Your task to perform on an android device: toggle notification dots Image 0: 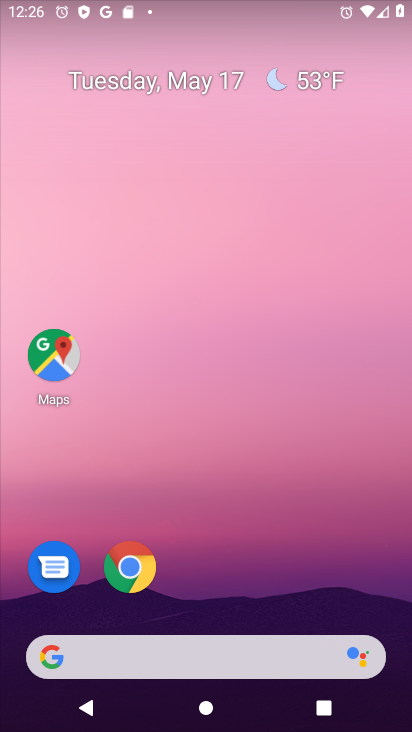
Step 0: drag from (376, 602) to (362, 149)
Your task to perform on an android device: toggle notification dots Image 1: 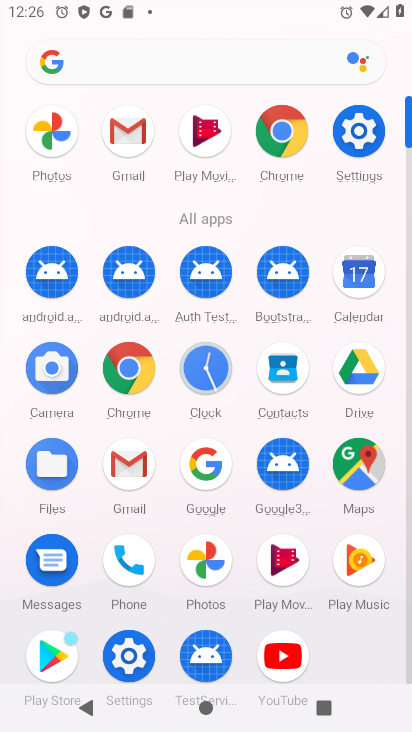
Step 1: click (346, 121)
Your task to perform on an android device: toggle notification dots Image 2: 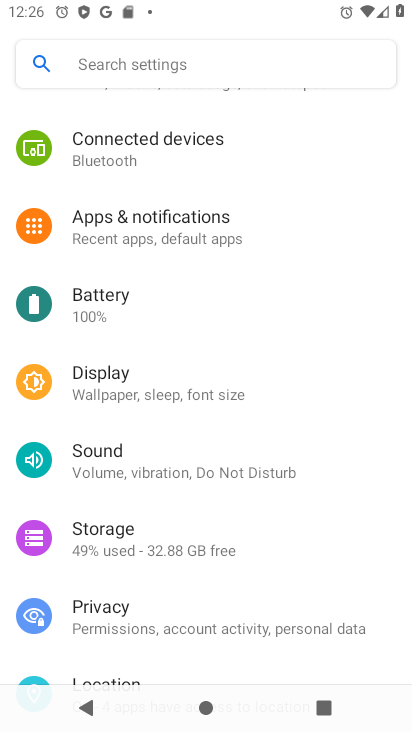
Step 2: drag from (336, 556) to (330, 308)
Your task to perform on an android device: toggle notification dots Image 3: 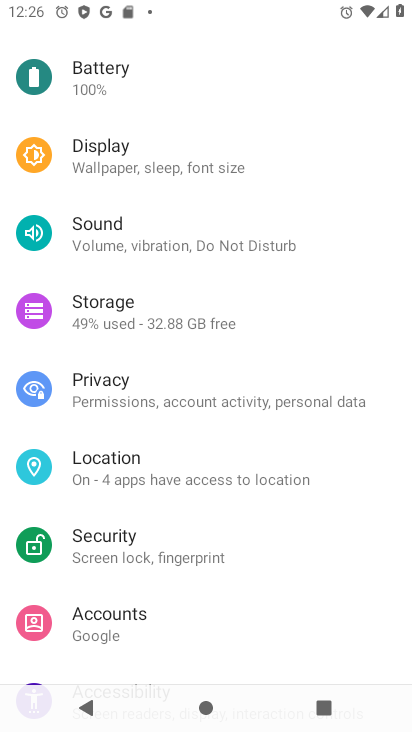
Step 3: drag from (286, 600) to (261, 450)
Your task to perform on an android device: toggle notification dots Image 4: 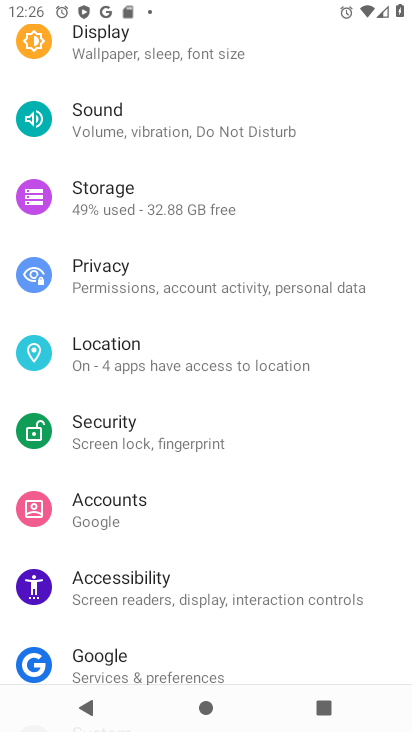
Step 4: drag from (285, 579) to (287, 440)
Your task to perform on an android device: toggle notification dots Image 5: 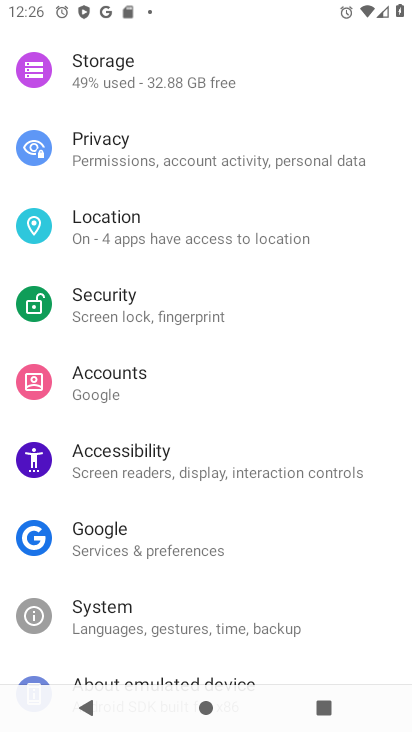
Step 5: drag from (310, 364) to (315, 507)
Your task to perform on an android device: toggle notification dots Image 6: 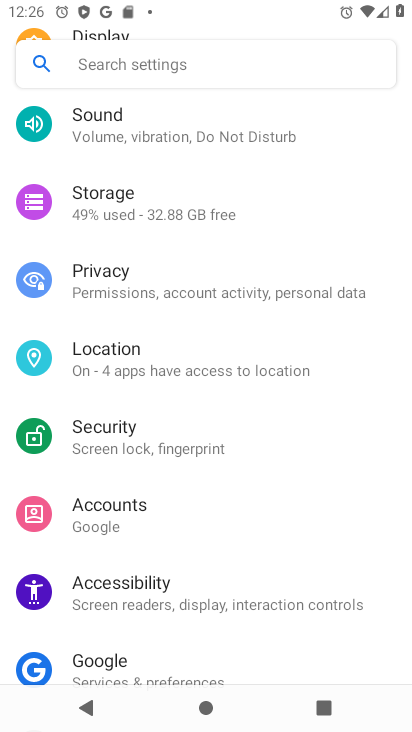
Step 6: drag from (309, 231) to (318, 451)
Your task to perform on an android device: toggle notification dots Image 7: 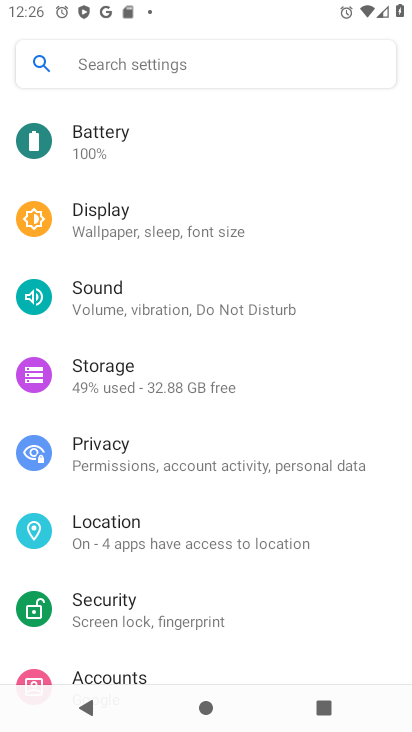
Step 7: drag from (343, 191) to (326, 396)
Your task to perform on an android device: toggle notification dots Image 8: 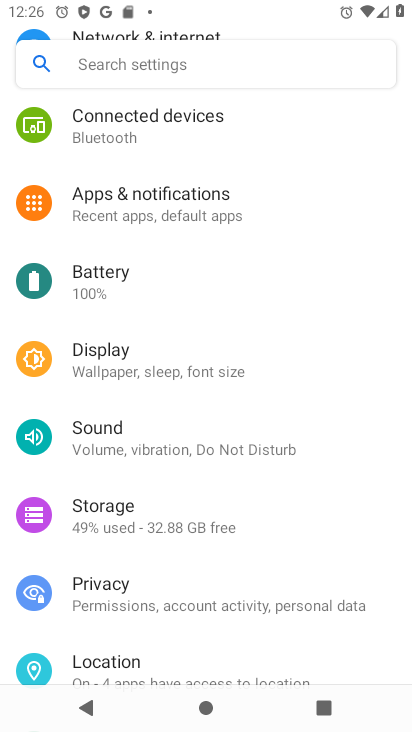
Step 8: click (219, 196)
Your task to perform on an android device: toggle notification dots Image 9: 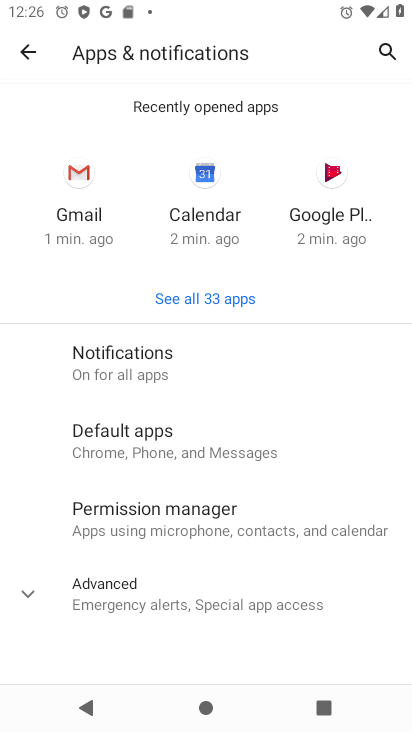
Step 9: click (165, 369)
Your task to perform on an android device: toggle notification dots Image 10: 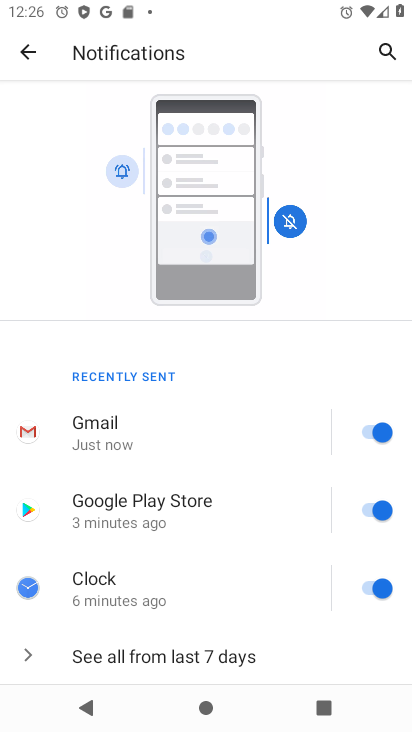
Step 10: drag from (215, 560) to (257, 290)
Your task to perform on an android device: toggle notification dots Image 11: 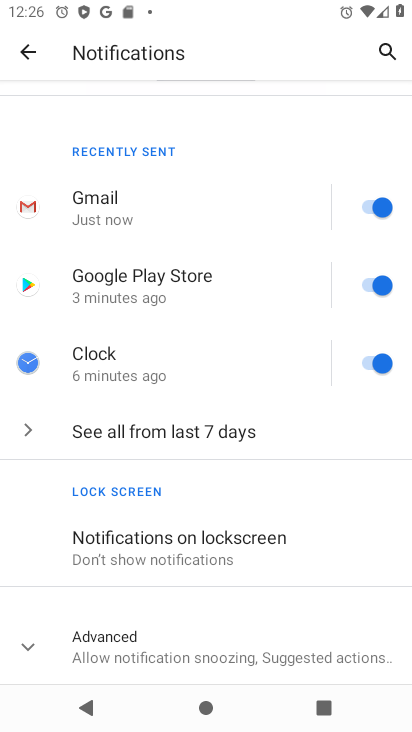
Step 11: drag from (288, 607) to (271, 399)
Your task to perform on an android device: toggle notification dots Image 12: 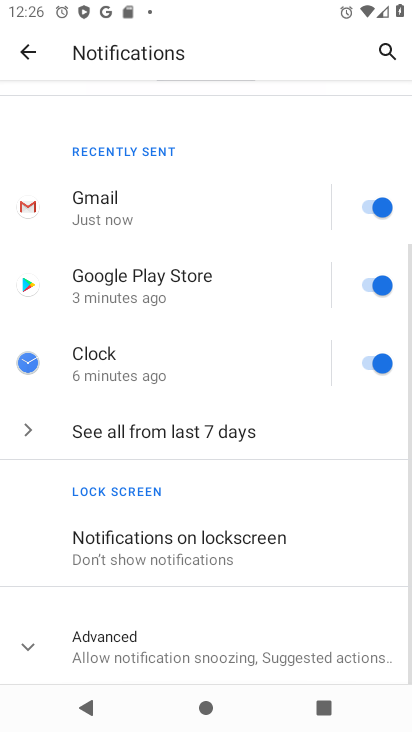
Step 12: click (202, 643)
Your task to perform on an android device: toggle notification dots Image 13: 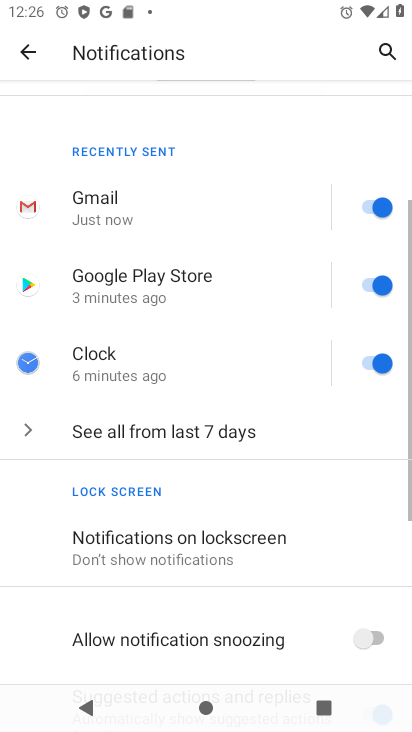
Step 13: drag from (238, 606) to (263, 476)
Your task to perform on an android device: toggle notification dots Image 14: 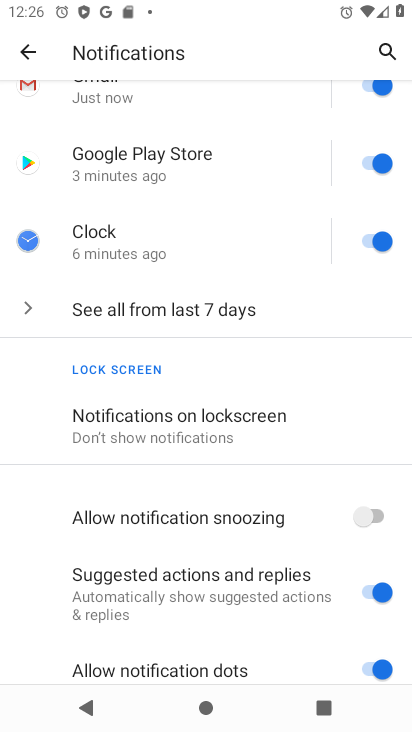
Step 14: drag from (277, 581) to (296, 495)
Your task to perform on an android device: toggle notification dots Image 15: 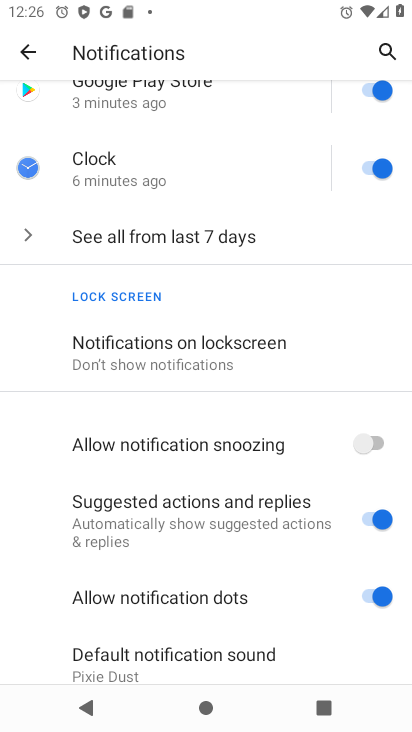
Step 15: drag from (308, 613) to (311, 522)
Your task to perform on an android device: toggle notification dots Image 16: 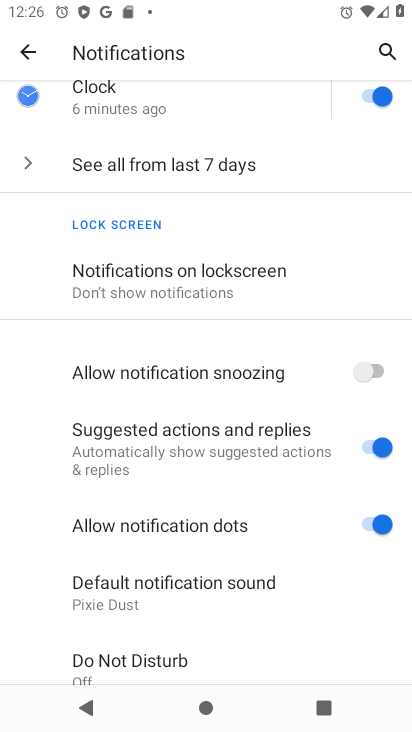
Step 16: click (372, 524)
Your task to perform on an android device: toggle notification dots Image 17: 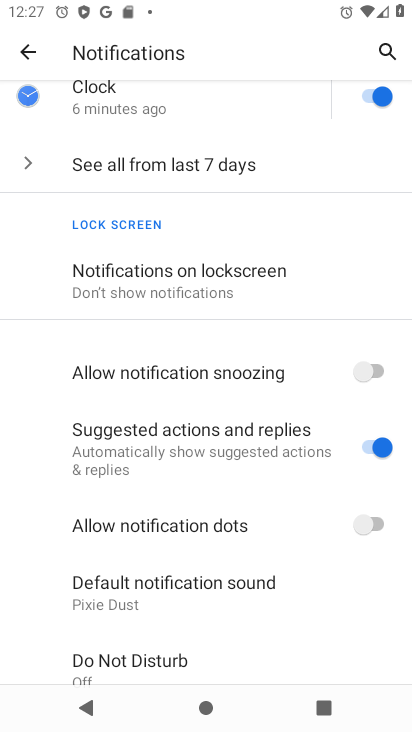
Step 17: task complete